Your task to perform on an android device: Turn off the flashlight Image 0: 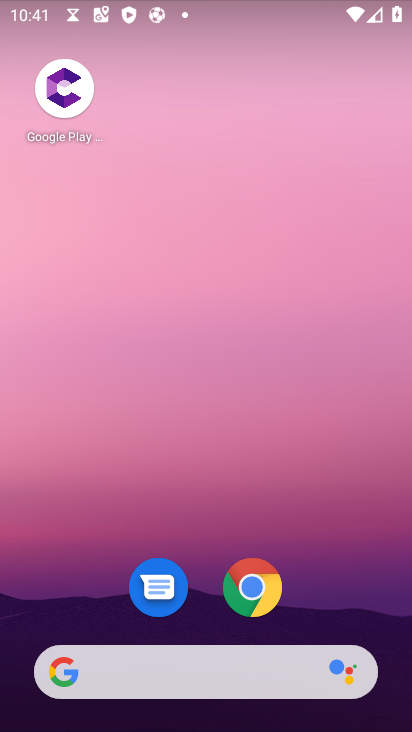
Step 0: drag from (253, 305) to (251, 188)
Your task to perform on an android device: Turn off the flashlight Image 1: 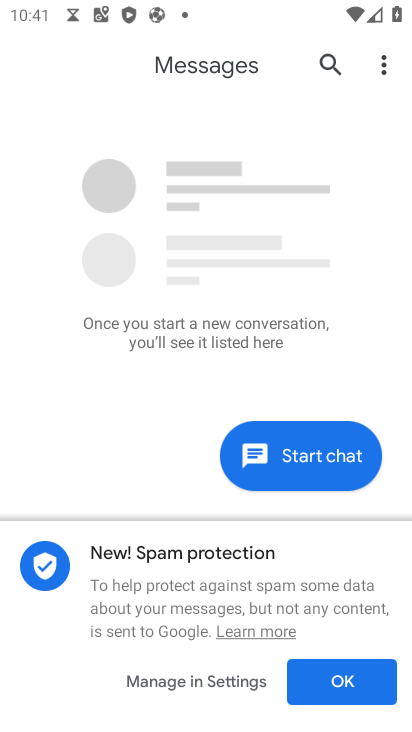
Step 1: press home button
Your task to perform on an android device: Turn off the flashlight Image 2: 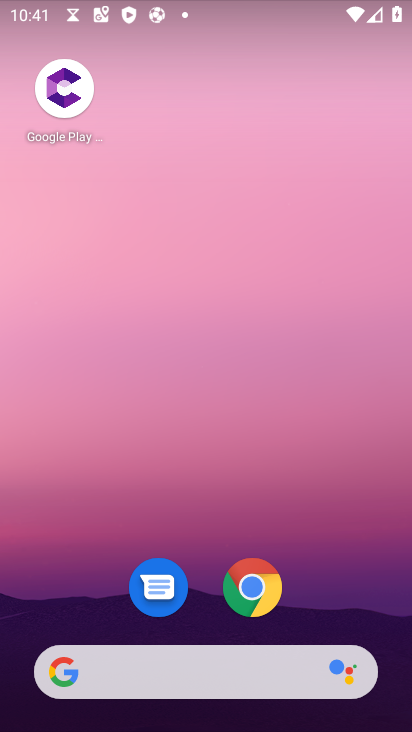
Step 2: drag from (177, 510) to (151, 99)
Your task to perform on an android device: Turn off the flashlight Image 3: 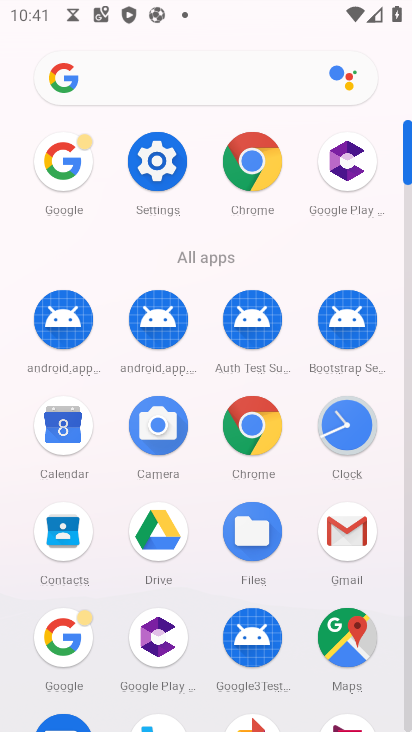
Step 3: click (157, 161)
Your task to perform on an android device: Turn off the flashlight Image 4: 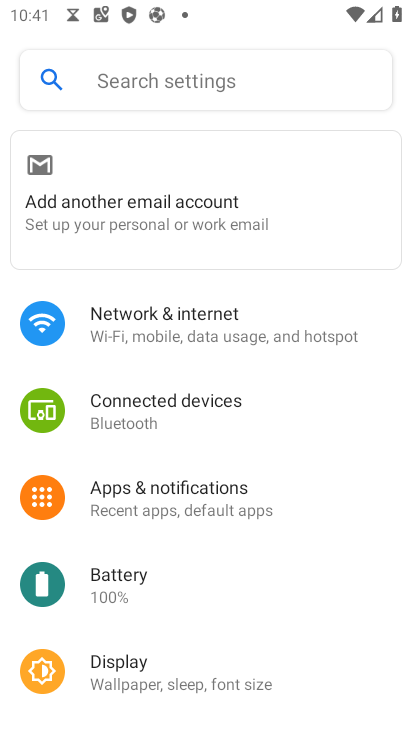
Step 4: click (221, 81)
Your task to perform on an android device: Turn off the flashlight Image 5: 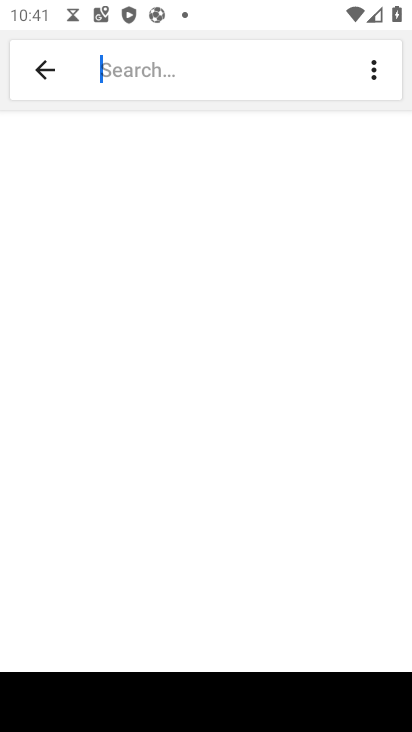
Step 5: type "flashlight"
Your task to perform on an android device: Turn off the flashlight Image 6: 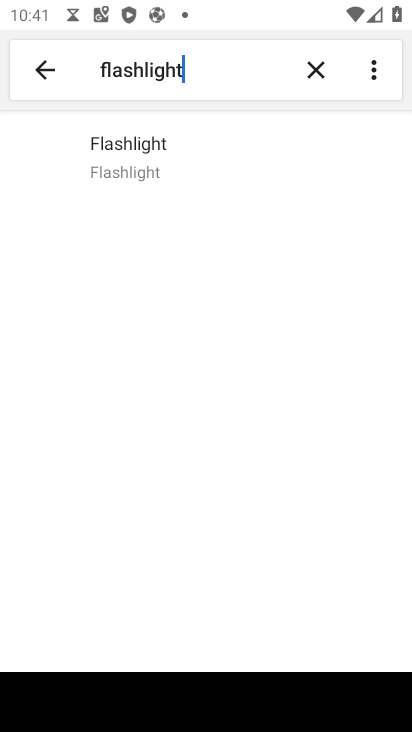
Step 6: click (162, 152)
Your task to perform on an android device: Turn off the flashlight Image 7: 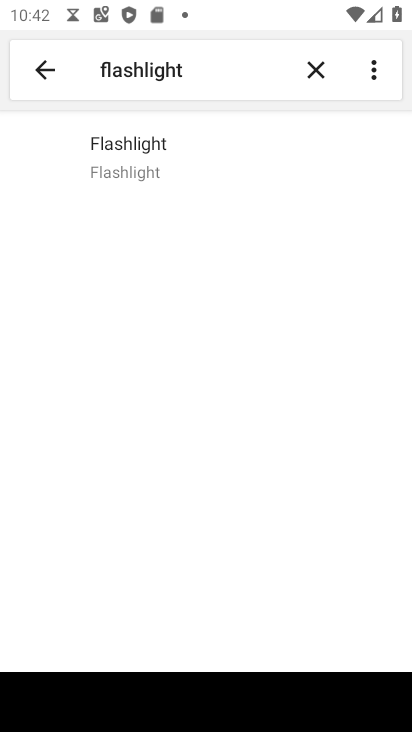
Step 7: click (157, 161)
Your task to perform on an android device: Turn off the flashlight Image 8: 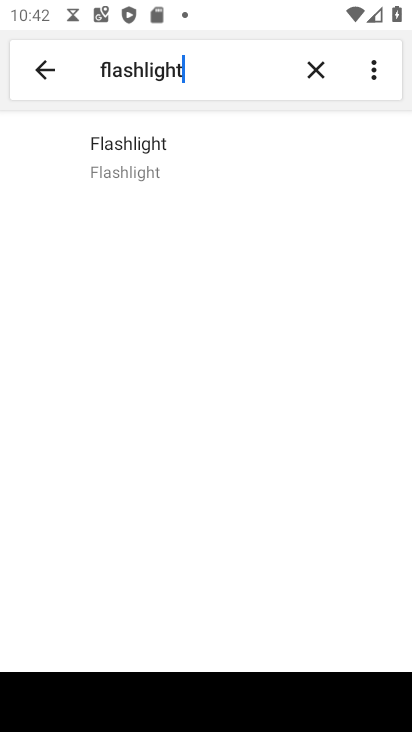
Step 8: task complete